Your task to perform on an android device: Search for Italian restaurants on Maps Image 0: 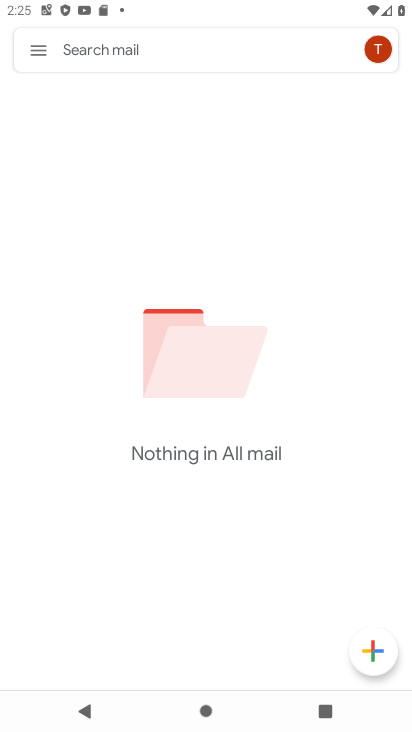
Step 0: press home button
Your task to perform on an android device: Search for Italian restaurants on Maps Image 1: 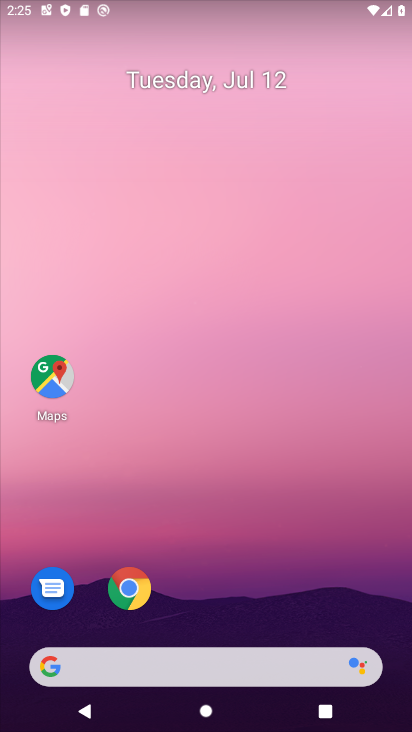
Step 1: click (52, 373)
Your task to perform on an android device: Search for Italian restaurants on Maps Image 2: 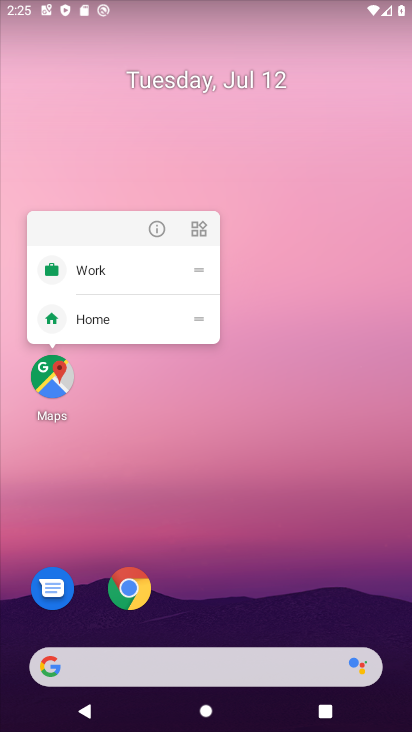
Step 2: click (59, 383)
Your task to perform on an android device: Search for Italian restaurants on Maps Image 3: 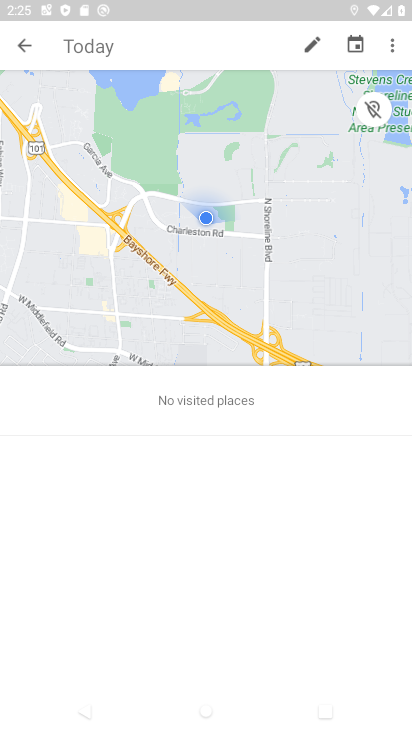
Step 3: click (28, 45)
Your task to perform on an android device: Search for Italian restaurants on Maps Image 4: 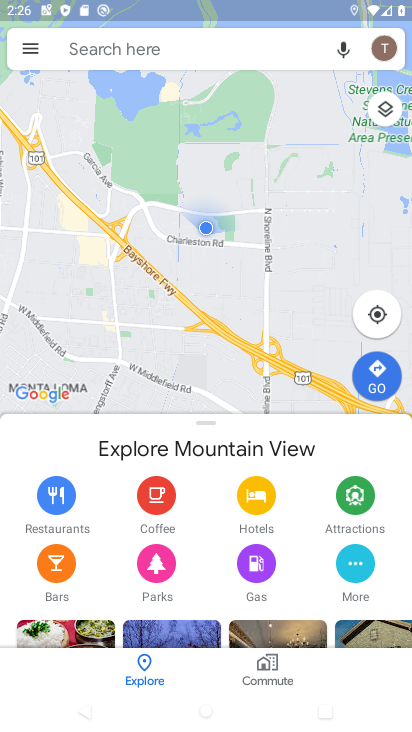
Step 4: click (33, 84)
Your task to perform on an android device: Search for Italian restaurants on Maps Image 5: 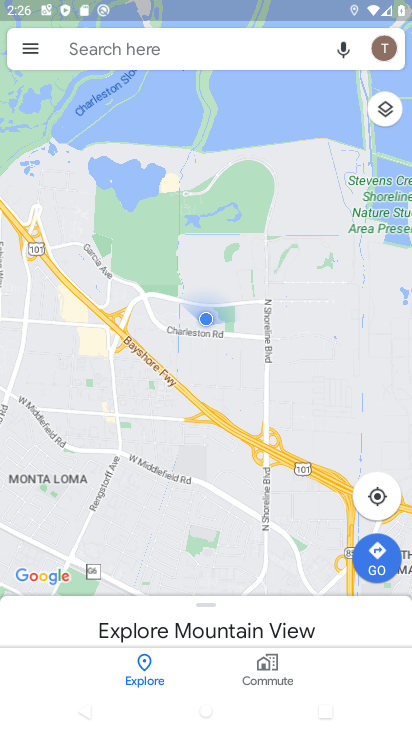
Step 5: drag from (33, 84) to (69, 54)
Your task to perform on an android device: Search for Italian restaurants on Maps Image 6: 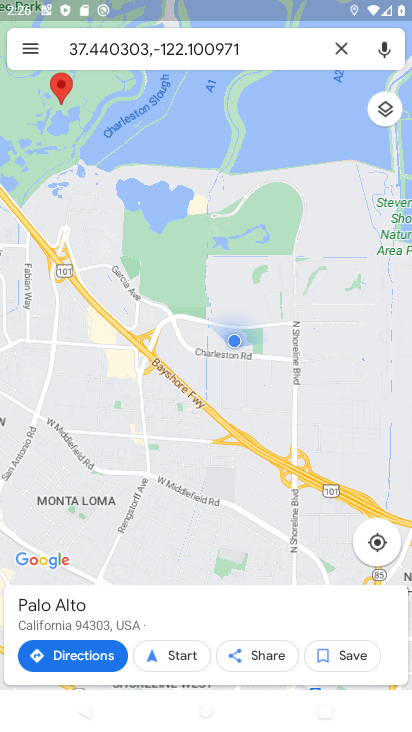
Step 6: click (69, 54)
Your task to perform on an android device: Search for Italian restaurants on Maps Image 7: 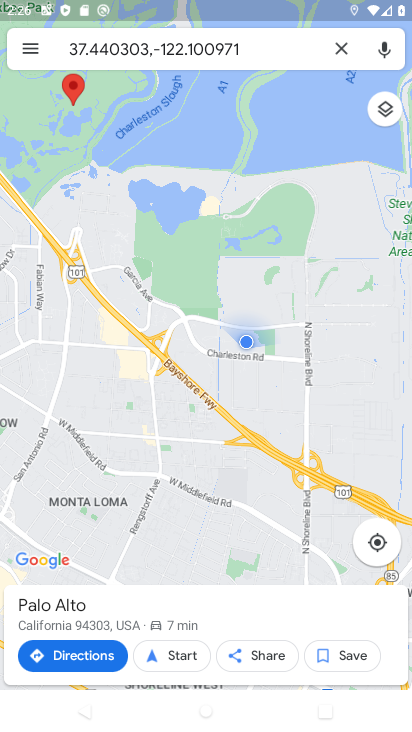
Step 7: click (69, 54)
Your task to perform on an android device: Search for Italian restaurants on Maps Image 8: 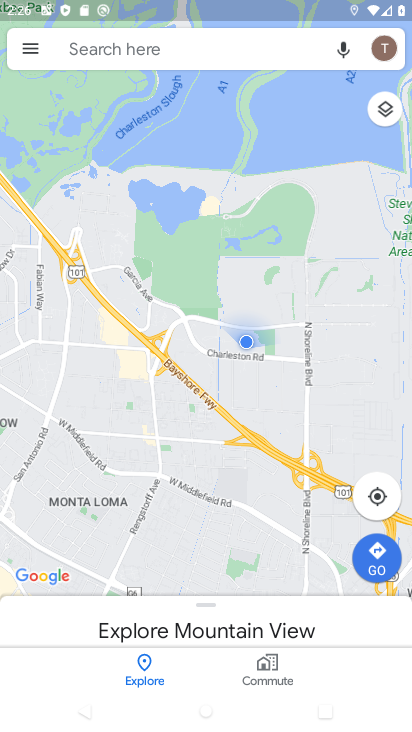
Step 8: click (161, 57)
Your task to perform on an android device: Search for Italian restaurants on Maps Image 9: 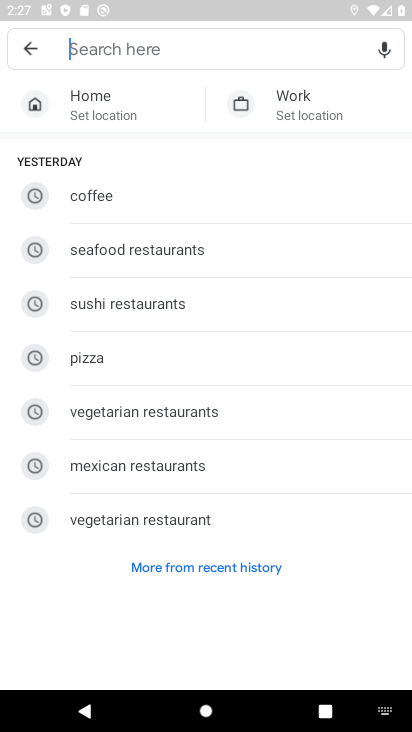
Step 9: type "italian restaurants"
Your task to perform on an android device: Search for Italian restaurants on Maps Image 10: 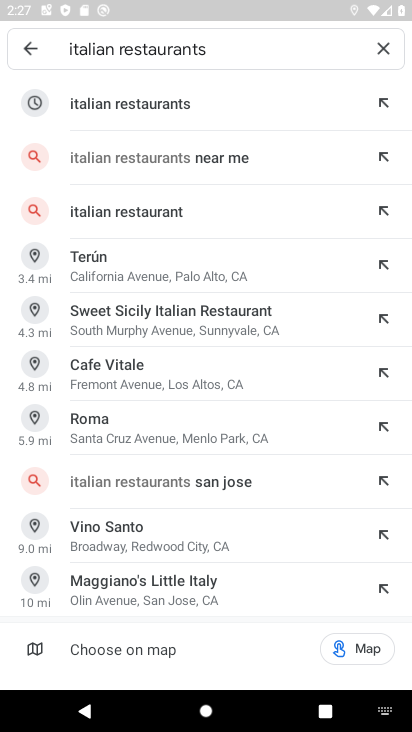
Step 10: click (186, 105)
Your task to perform on an android device: Search for Italian restaurants on Maps Image 11: 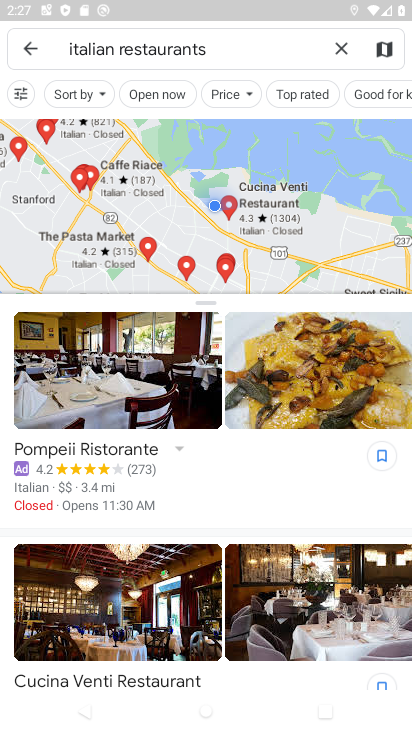
Step 11: task complete